Your task to perform on an android device: turn on javascript in the chrome app Image 0: 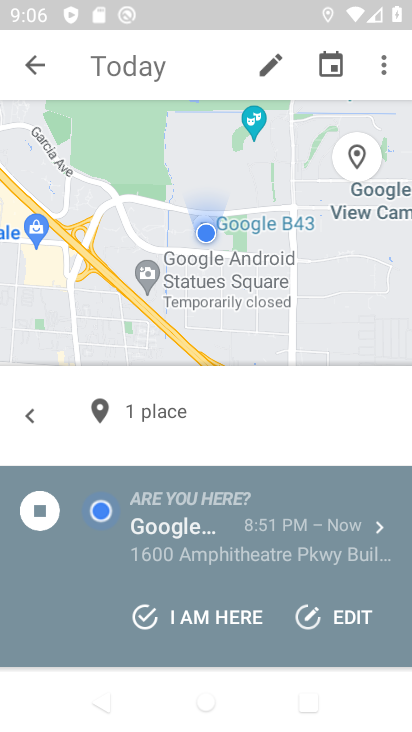
Step 0: press home button
Your task to perform on an android device: turn on javascript in the chrome app Image 1: 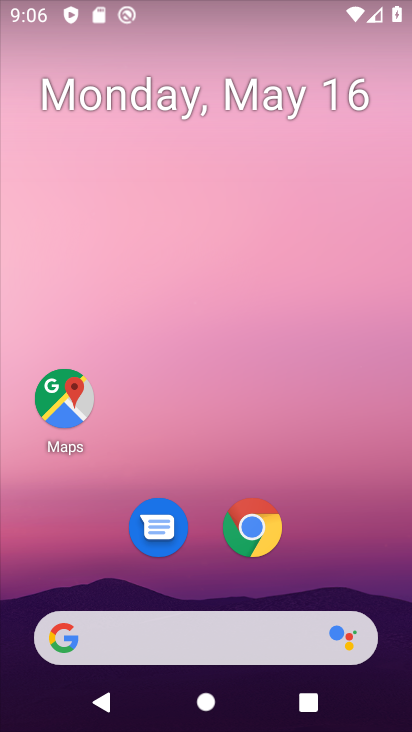
Step 1: click (255, 530)
Your task to perform on an android device: turn on javascript in the chrome app Image 2: 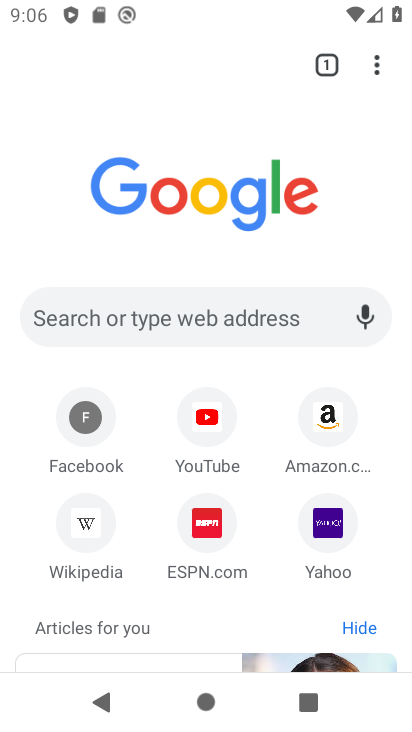
Step 2: click (381, 63)
Your task to perform on an android device: turn on javascript in the chrome app Image 3: 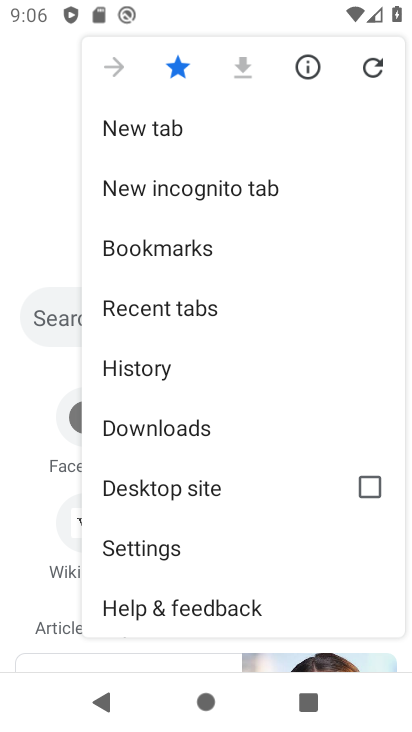
Step 3: click (156, 540)
Your task to perform on an android device: turn on javascript in the chrome app Image 4: 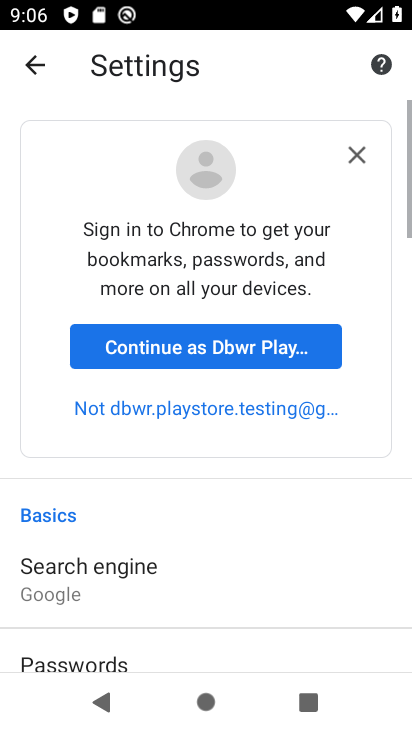
Step 4: drag from (196, 593) to (191, 12)
Your task to perform on an android device: turn on javascript in the chrome app Image 5: 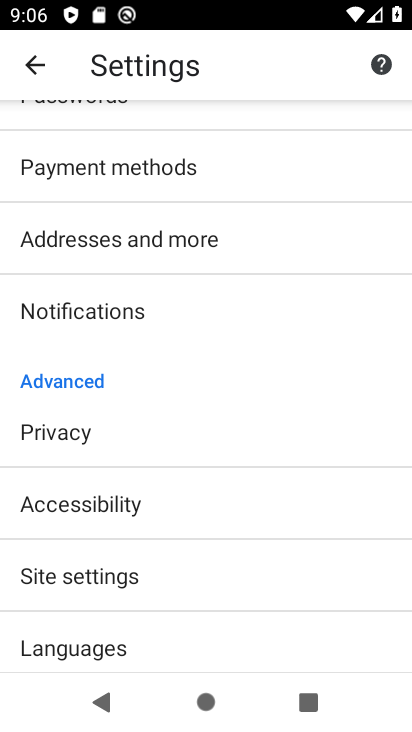
Step 5: click (86, 583)
Your task to perform on an android device: turn on javascript in the chrome app Image 6: 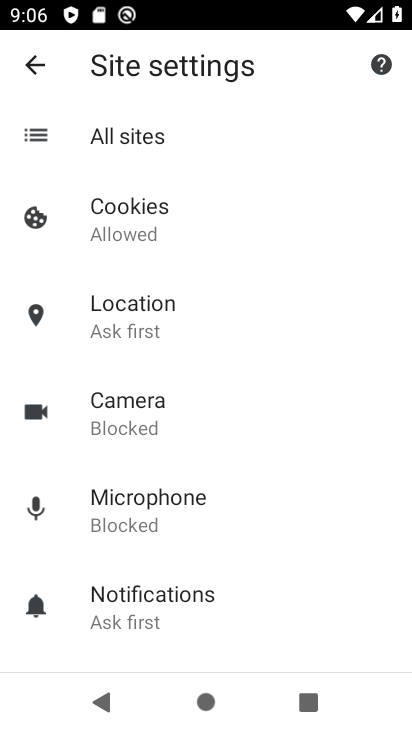
Step 6: drag from (212, 596) to (231, 307)
Your task to perform on an android device: turn on javascript in the chrome app Image 7: 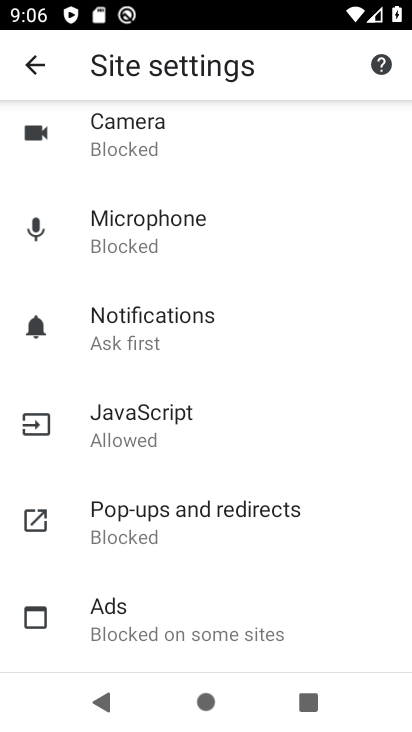
Step 7: click (156, 422)
Your task to perform on an android device: turn on javascript in the chrome app Image 8: 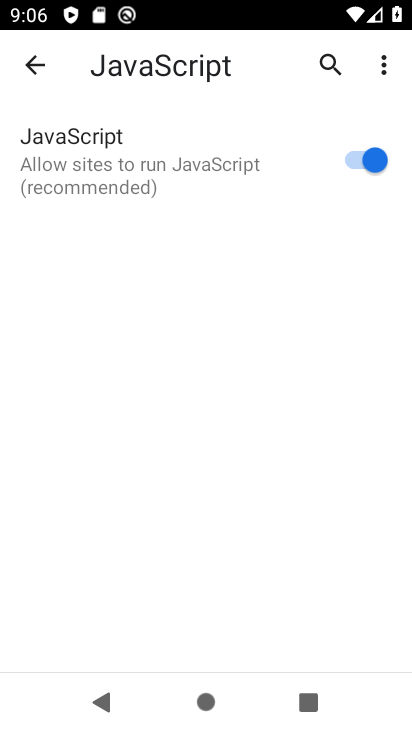
Step 8: task complete